Your task to perform on an android device: Go to Maps Image 0: 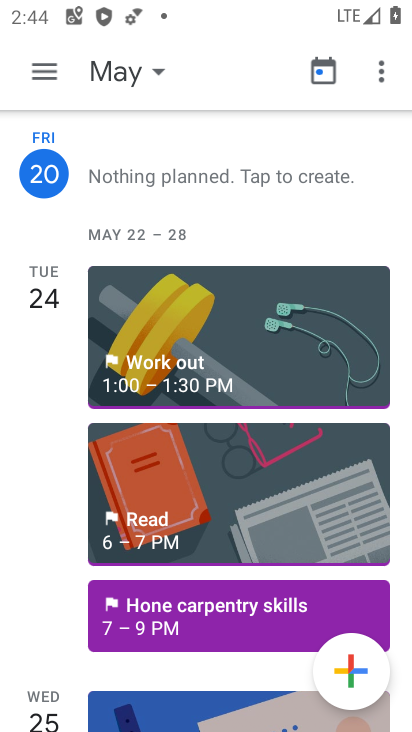
Step 0: press home button
Your task to perform on an android device: Go to Maps Image 1: 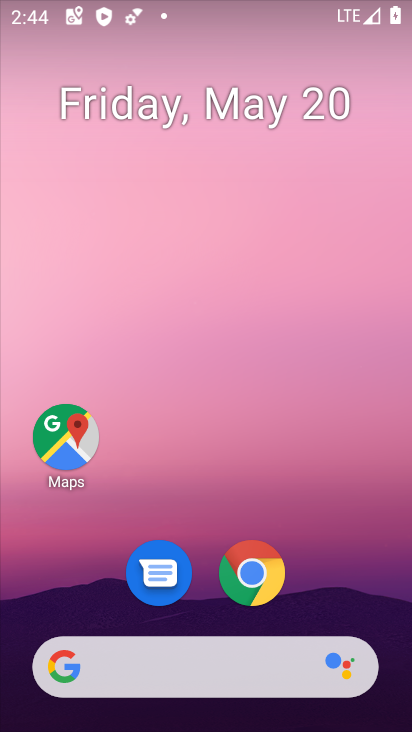
Step 1: click (84, 452)
Your task to perform on an android device: Go to Maps Image 2: 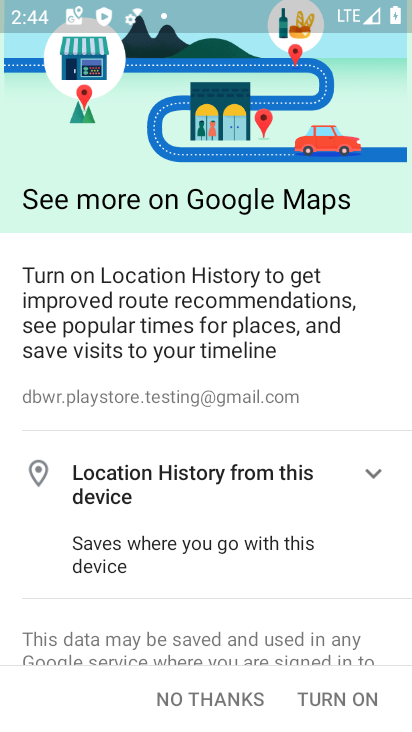
Step 2: click (206, 698)
Your task to perform on an android device: Go to Maps Image 3: 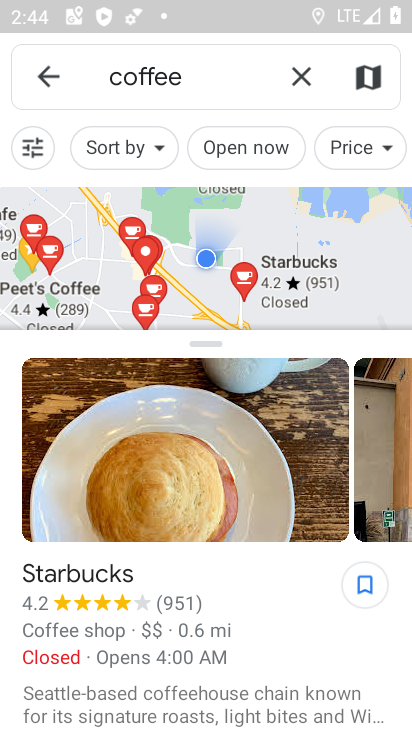
Step 3: task complete